Your task to perform on an android device: Open Google Chrome Image 0: 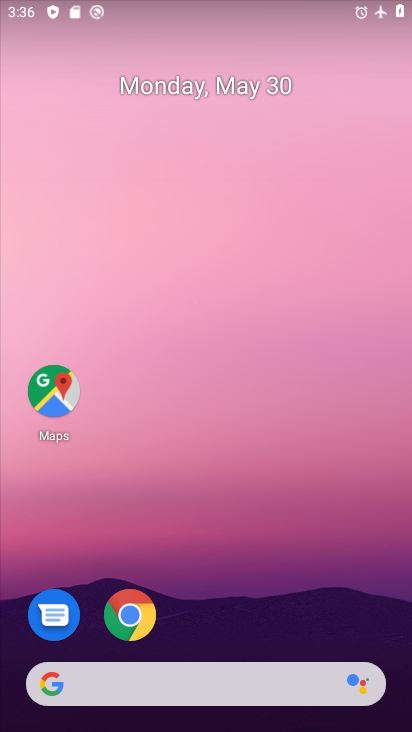
Step 0: click (134, 612)
Your task to perform on an android device: Open Google Chrome Image 1: 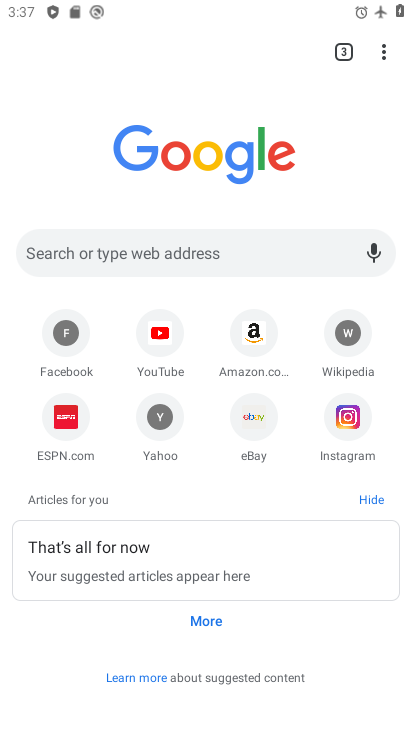
Step 1: task complete